Your task to perform on an android device: add a contact in the contacts app Image 0: 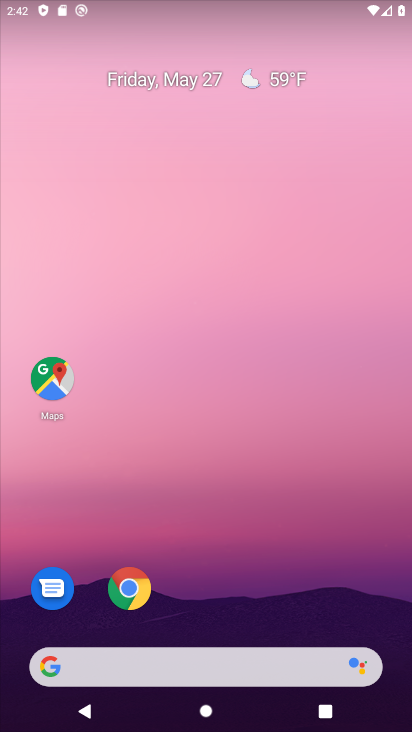
Step 0: drag from (224, 647) to (113, 216)
Your task to perform on an android device: add a contact in the contacts app Image 1: 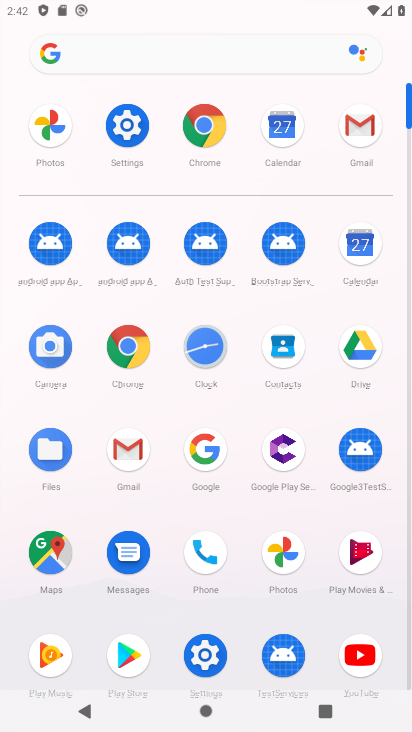
Step 1: click (280, 347)
Your task to perform on an android device: add a contact in the contacts app Image 2: 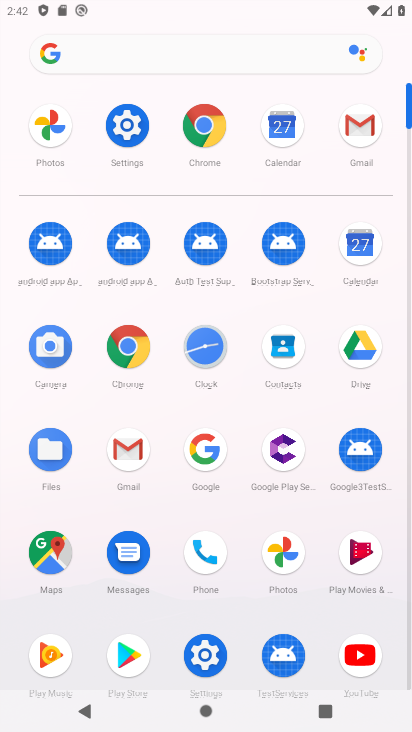
Step 2: click (280, 347)
Your task to perform on an android device: add a contact in the contacts app Image 3: 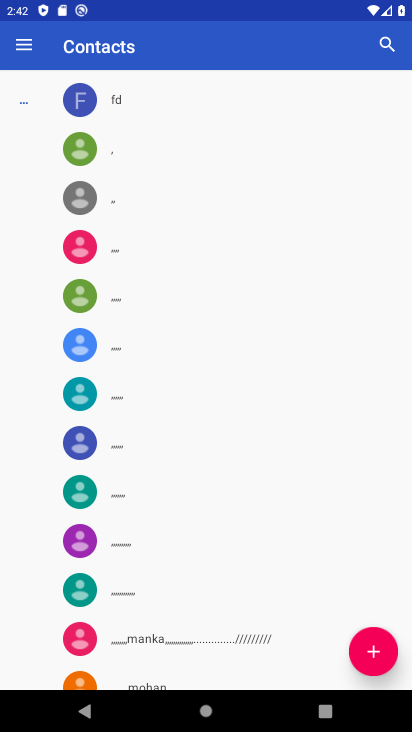
Step 3: click (374, 647)
Your task to perform on an android device: add a contact in the contacts app Image 4: 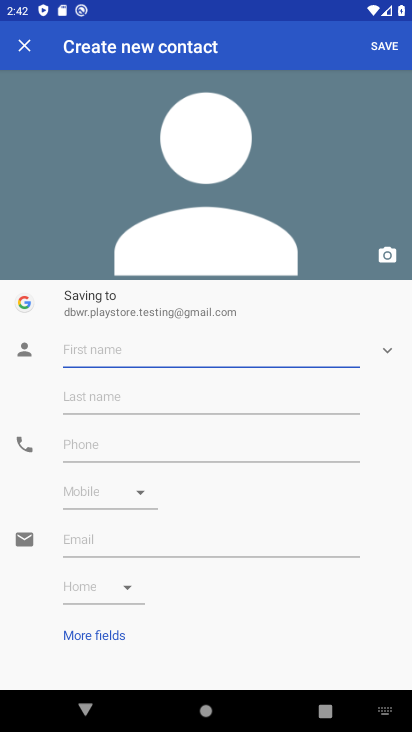
Step 4: type "fdfghgfh"
Your task to perform on an android device: add a contact in the contacts app Image 5: 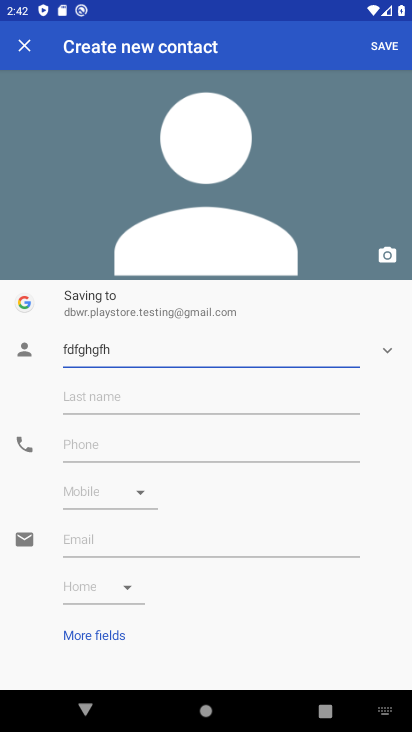
Step 5: click (70, 446)
Your task to perform on an android device: add a contact in the contacts app Image 6: 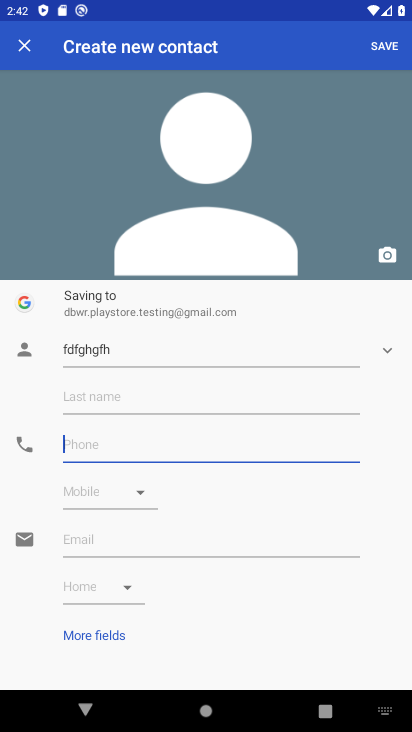
Step 6: type "567676685566"
Your task to perform on an android device: add a contact in the contacts app Image 7: 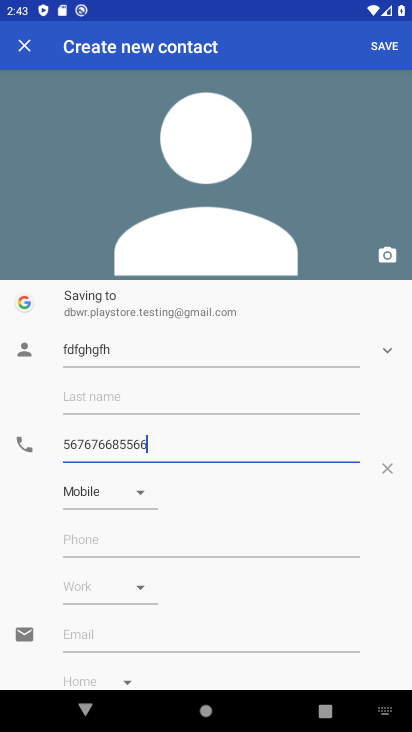
Step 7: click (388, 47)
Your task to perform on an android device: add a contact in the contacts app Image 8: 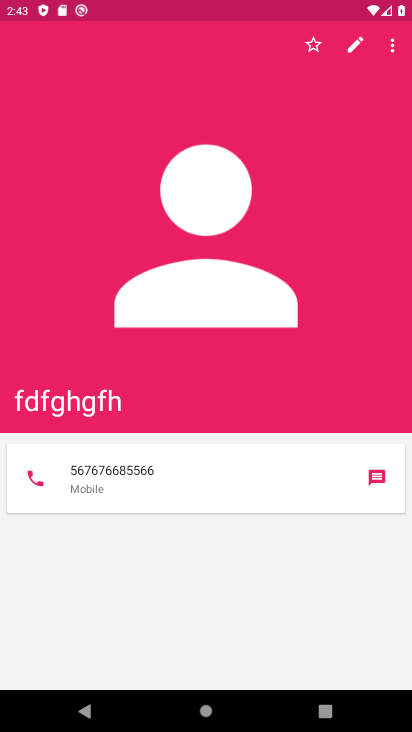
Step 8: task complete